Your task to perform on an android device: change keyboard looks Image 0: 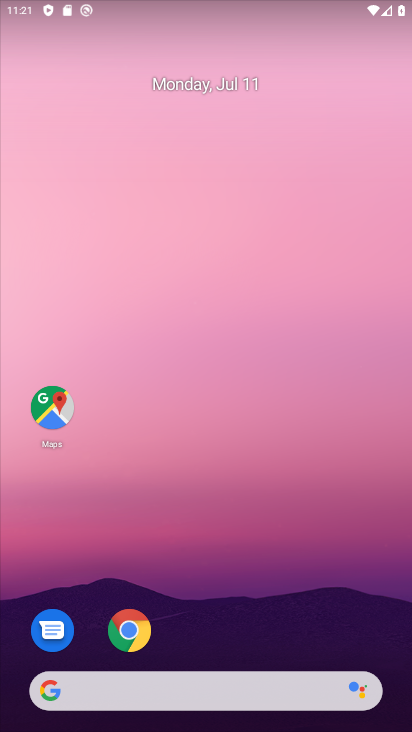
Step 0: drag from (378, 641) to (344, 59)
Your task to perform on an android device: change keyboard looks Image 1: 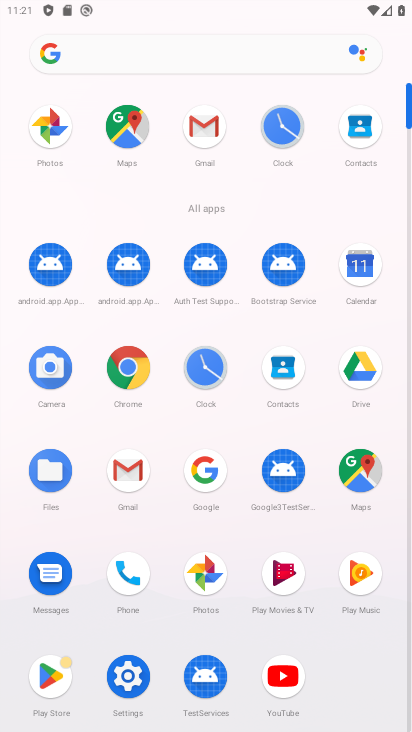
Step 1: click (127, 673)
Your task to perform on an android device: change keyboard looks Image 2: 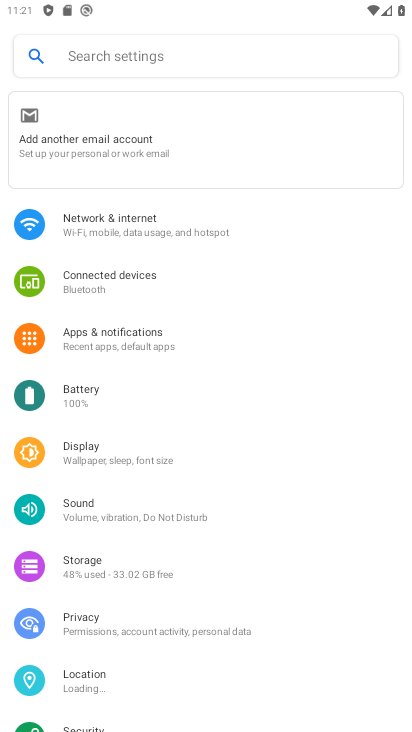
Step 2: drag from (266, 633) to (255, 275)
Your task to perform on an android device: change keyboard looks Image 3: 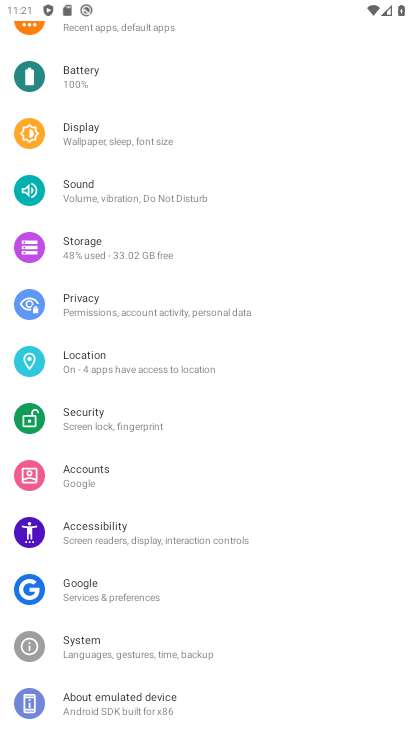
Step 3: click (91, 645)
Your task to perform on an android device: change keyboard looks Image 4: 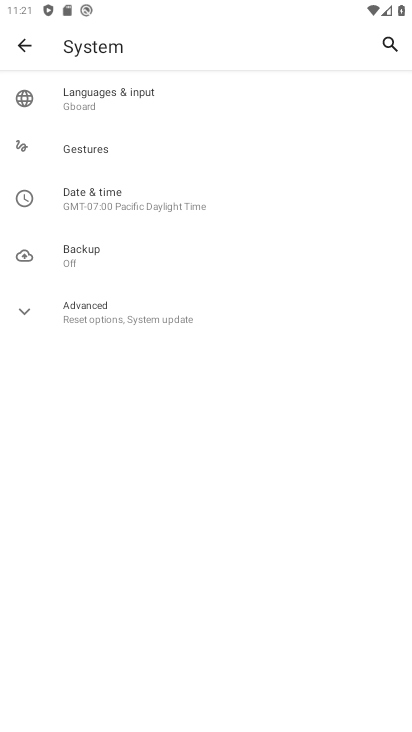
Step 4: click (89, 105)
Your task to perform on an android device: change keyboard looks Image 5: 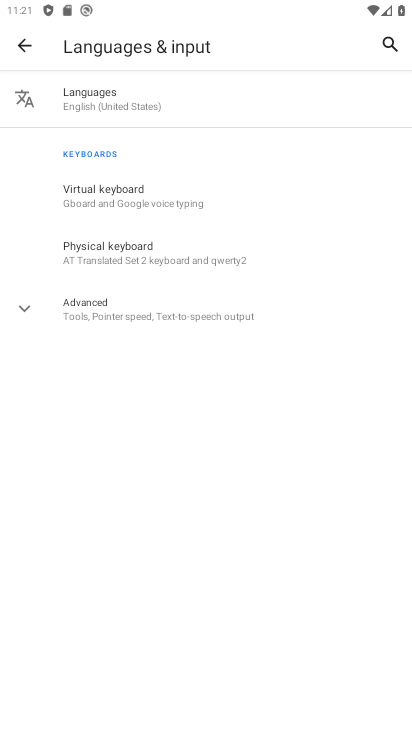
Step 5: click (110, 254)
Your task to perform on an android device: change keyboard looks Image 6: 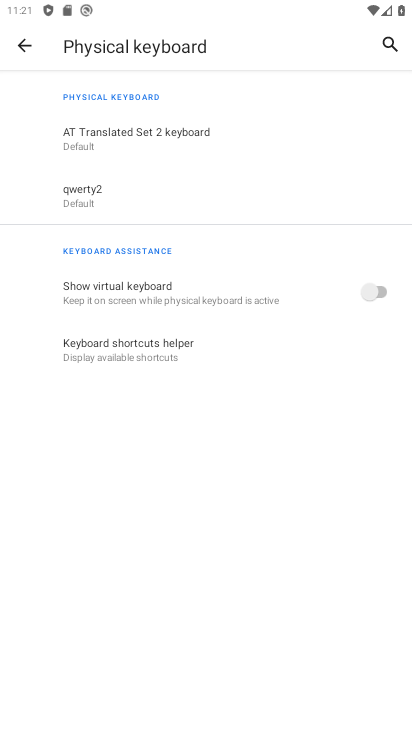
Step 6: click (74, 203)
Your task to perform on an android device: change keyboard looks Image 7: 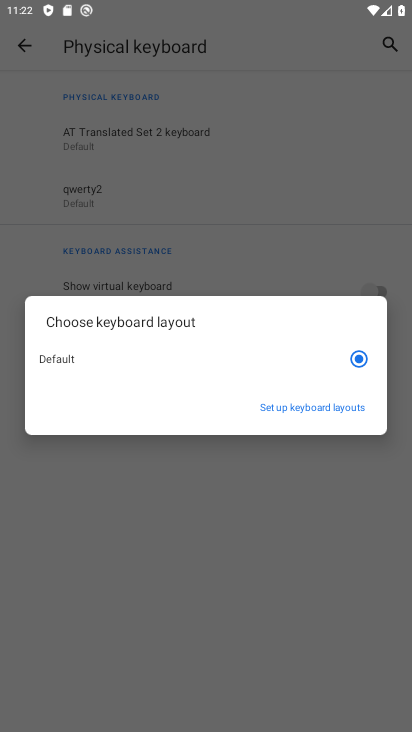
Step 7: click (309, 409)
Your task to perform on an android device: change keyboard looks Image 8: 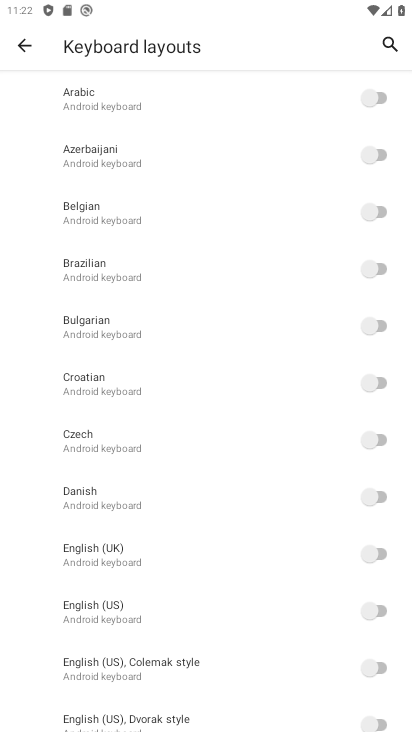
Step 8: click (379, 608)
Your task to perform on an android device: change keyboard looks Image 9: 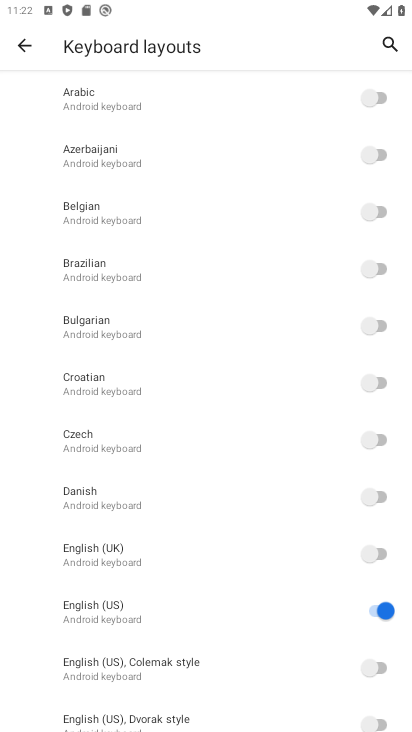
Step 9: task complete